Your task to perform on an android device: Open the calendar and show me this week's events Image 0: 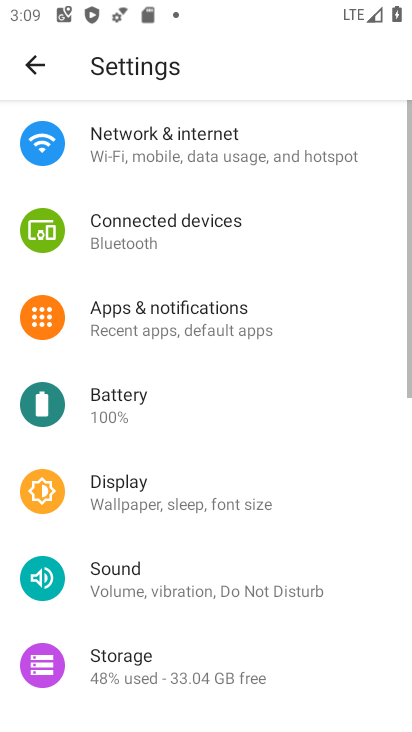
Step 0: press home button
Your task to perform on an android device: Open the calendar and show me this week's events Image 1: 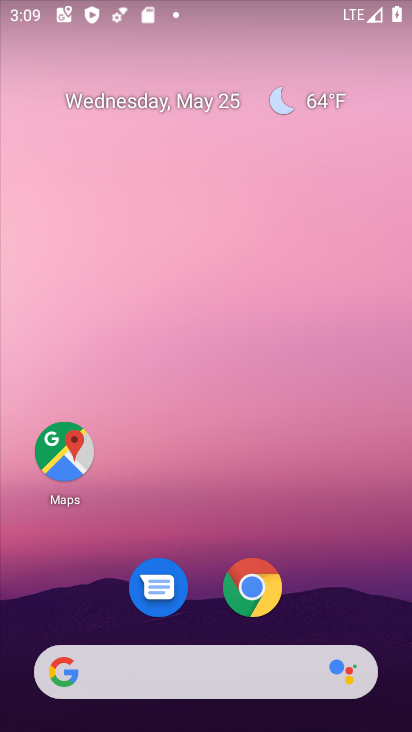
Step 1: drag from (381, 625) to (229, 155)
Your task to perform on an android device: Open the calendar and show me this week's events Image 2: 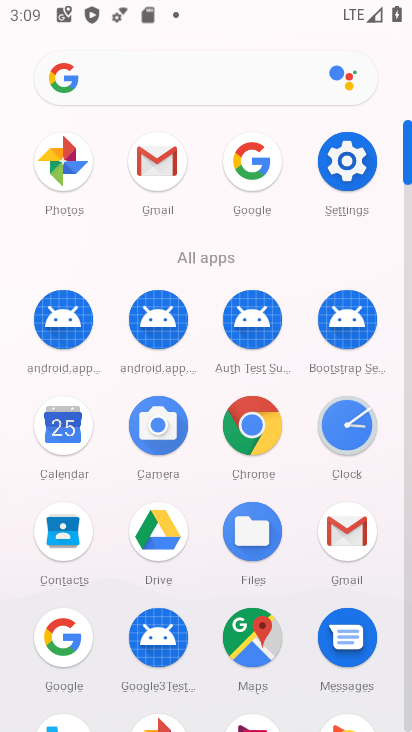
Step 2: click (72, 426)
Your task to perform on an android device: Open the calendar and show me this week's events Image 3: 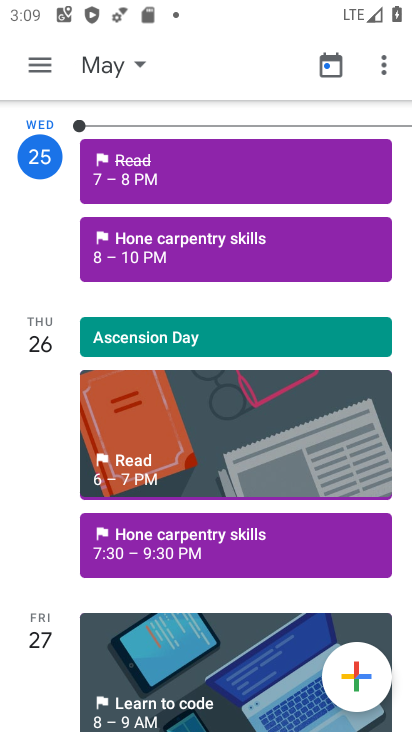
Step 3: click (40, 68)
Your task to perform on an android device: Open the calendar and show me this week's events Image 4: 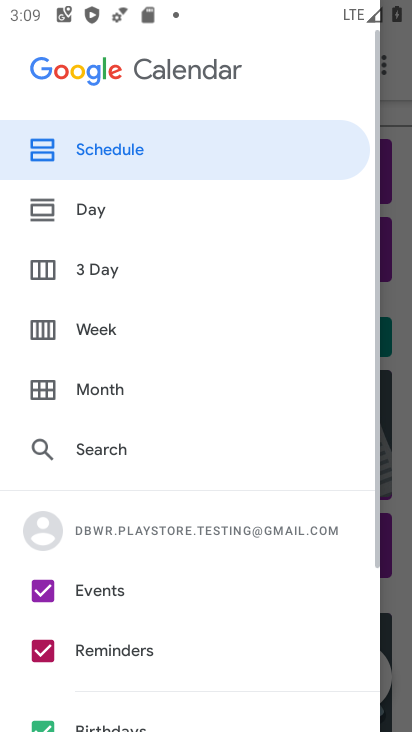
Step 4: click (114, 320)
Your task to perform on an android device: Open the calendar and show me this week's events Image 5: 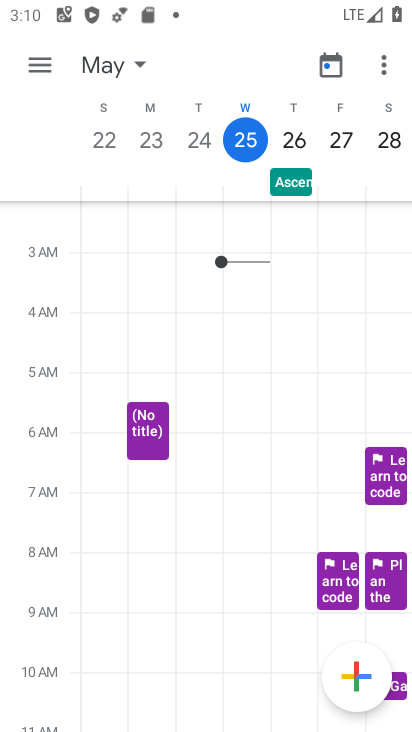
Step 5: task complete